Your task to perform on an android device: Open eBay Image 0: 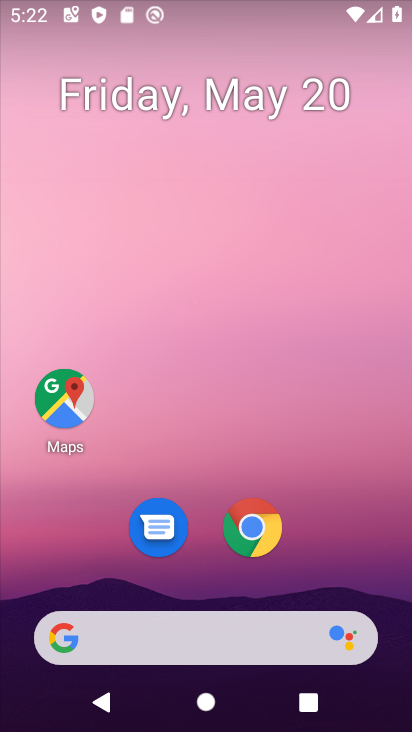
Step 0: drag from (346, 594) to (252, 110)
Your task to perform on an android device: Open eBay Image 1: 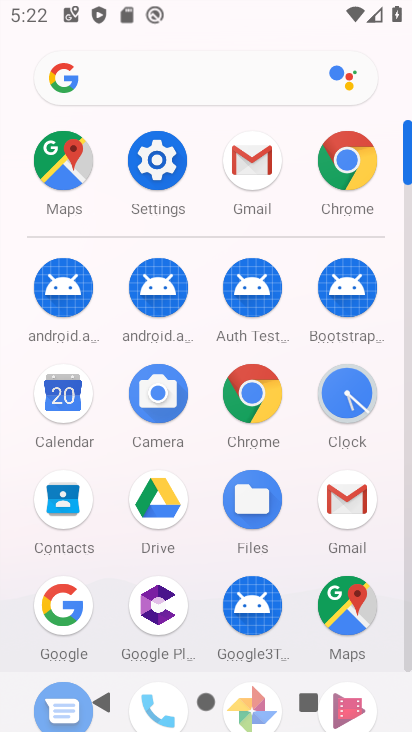
Step 1: click (259, 411)
Your task to perform on an android device: Open eBay Image 2: 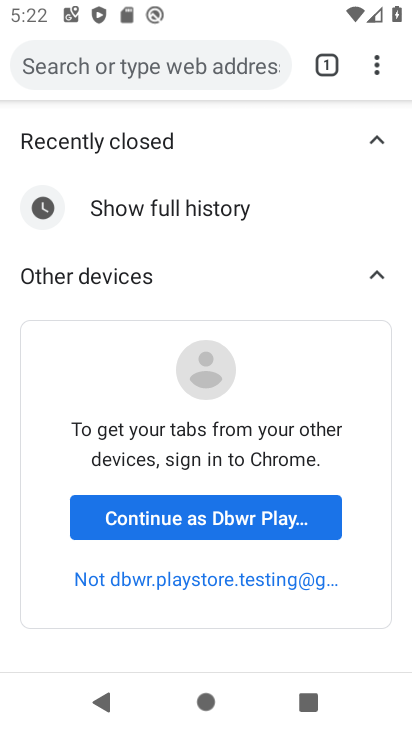
Step 2: press back button
Your task to perform on an android device: Open eBay Image 3: 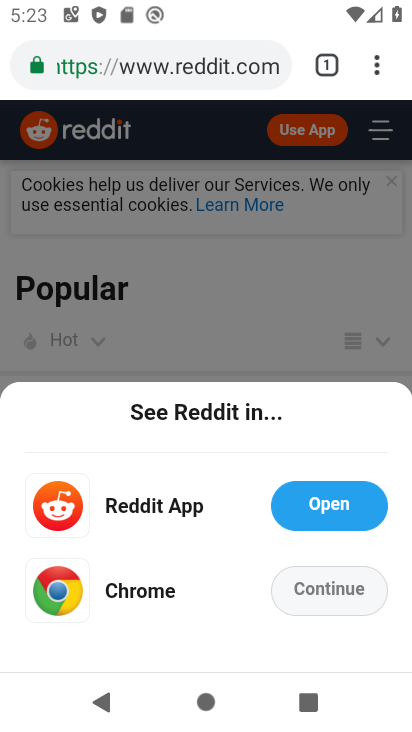
Step 3: press back button
Your task to perform on an android device: Open eBay Image 4: 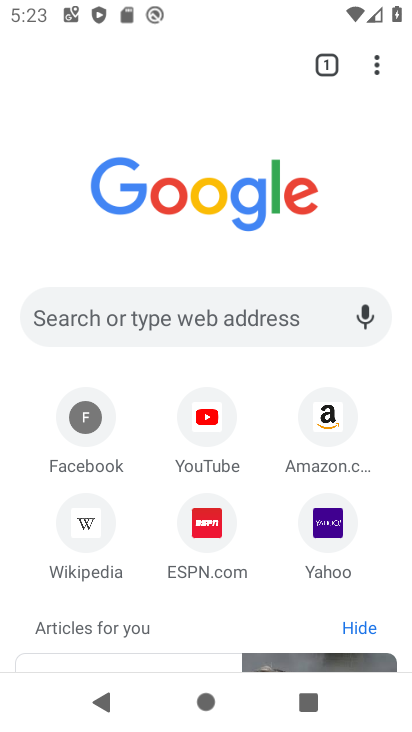
Step 4: click (309, 303)
Your task to perform on an android device: Open eBay Image 5: 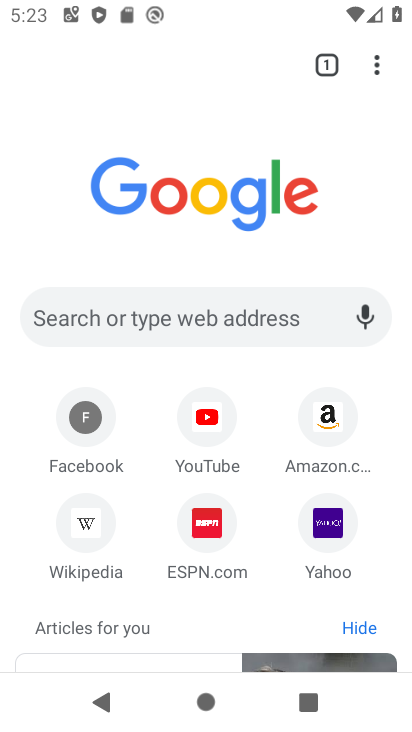
Step 5: click (310, 302)
Your task to perform on an android device: Open eBay Image 6: 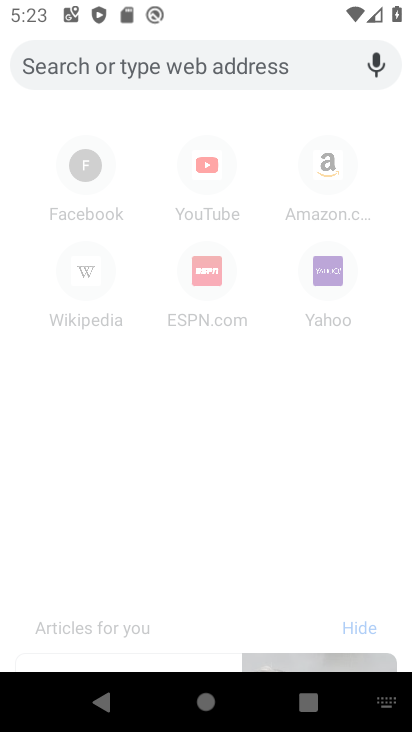
Step 6: type "ebay"
Your task to perform on an android device: Open eBay Image 7: 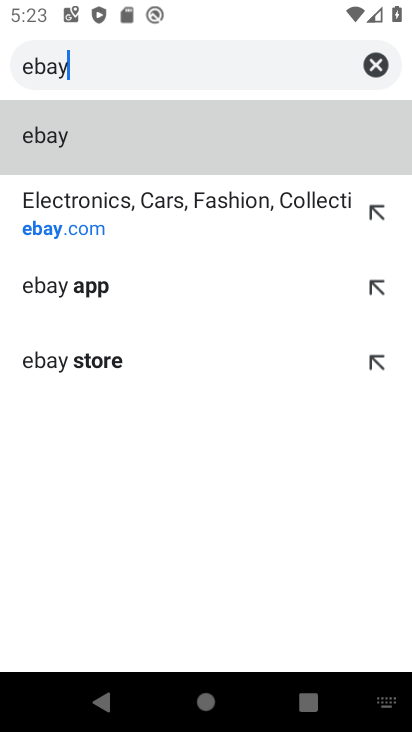
Step 7: click (187, 218)
Your task to perform on an android device: Open eBay Image 8: 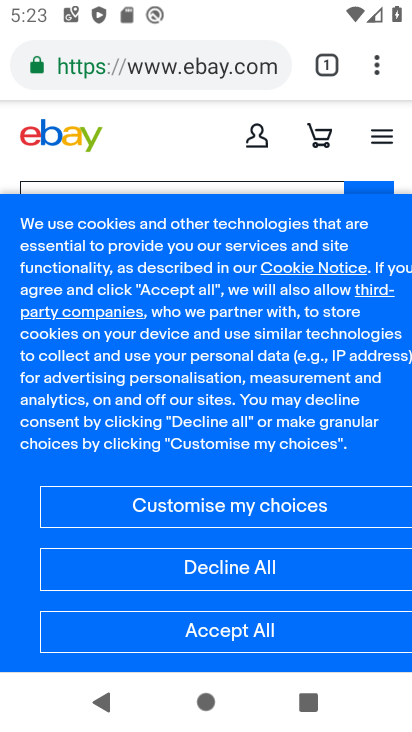
Step 8: task complete